Your task to perform on an android device: Go to Yahoo.com Image 0: 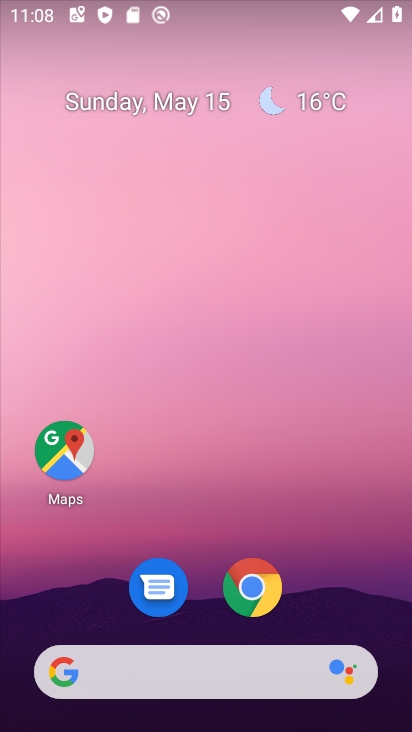
Step 0: drag from (346, 562) to (267, 3)
Your task to perform on an android device: Go to Yahoo.com Image 1: 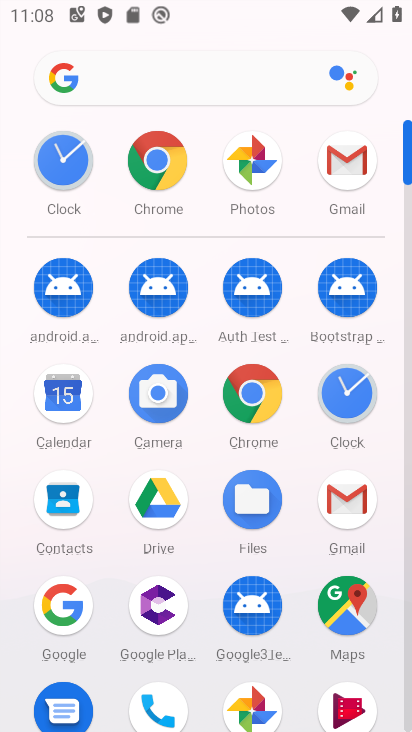
Step 1: drag from (10, 607) to (30, 297)
Your task to perform on an android device: Go to Yahoo.com Image 2: 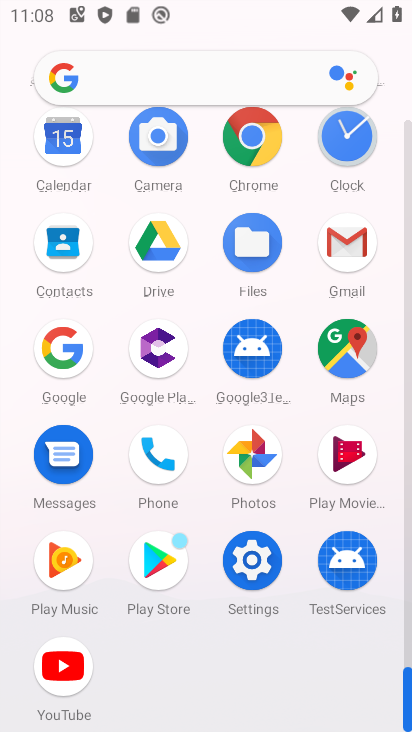
Step 2: click (252, 129)
Your task to perform on an android device: Go to Yahoo.com Image 3: 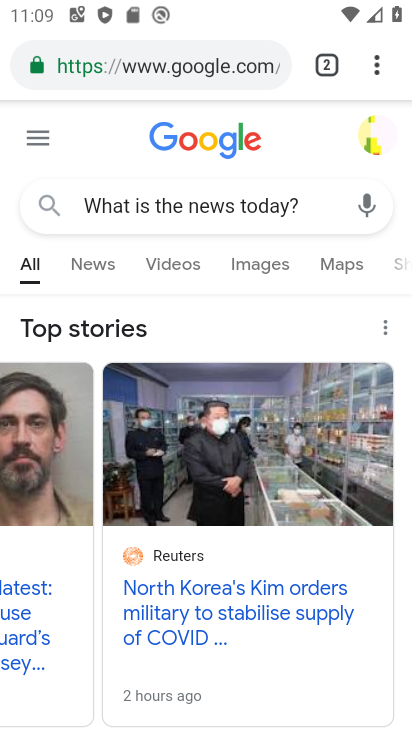
Step 3: click (224, 65)
Your task to perform on an android device: Go to Yahoo.com Image 4: 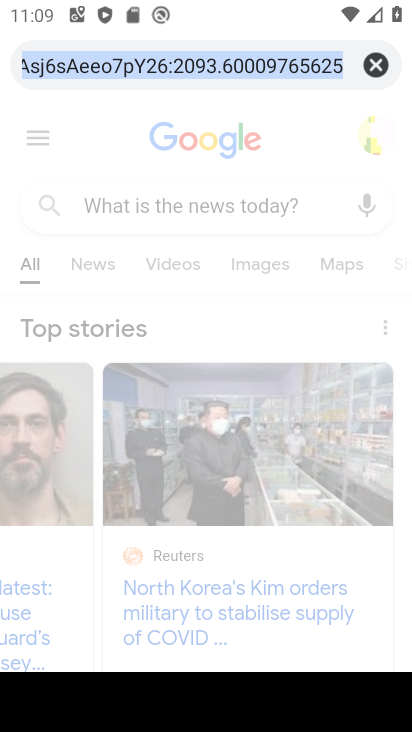
Step 4: click (367, 58)
Your task to perform on an android device: Go to Yahoo.com Image 5: 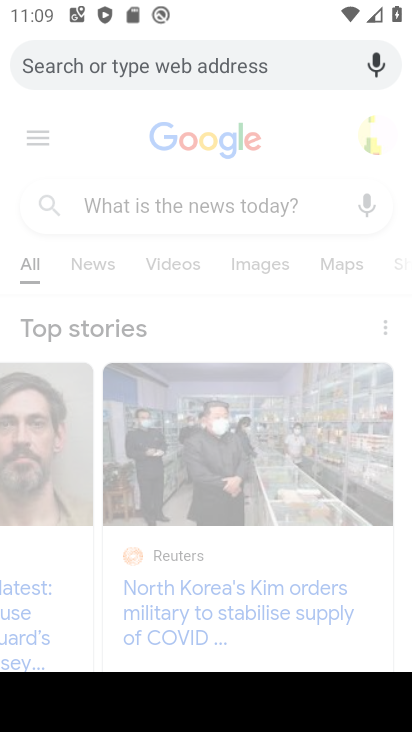
Step 5: type "Yahoo.com"
Your task to perform on an android device: Go to Yahoo.com Image 6: 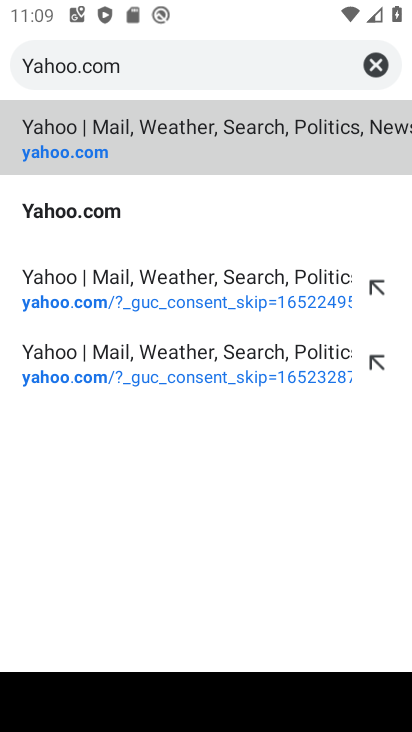
Step 6: click (105, 133)
Your task to perform on an android device: Go to Yahoo.com Image 7: 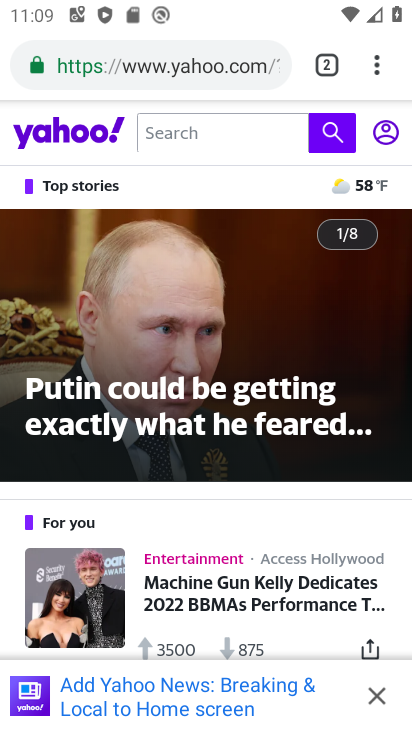
Step 7: task complete